Your task to perform on an android device: turn on airplane mode Image 0: 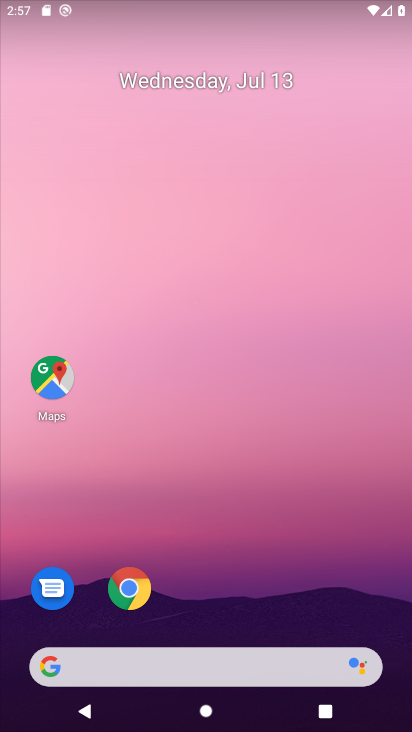
Step 0: drag from (190, 640) to (189, 132)
Your task to perform on an android device: turn on airplane mode Image 1: 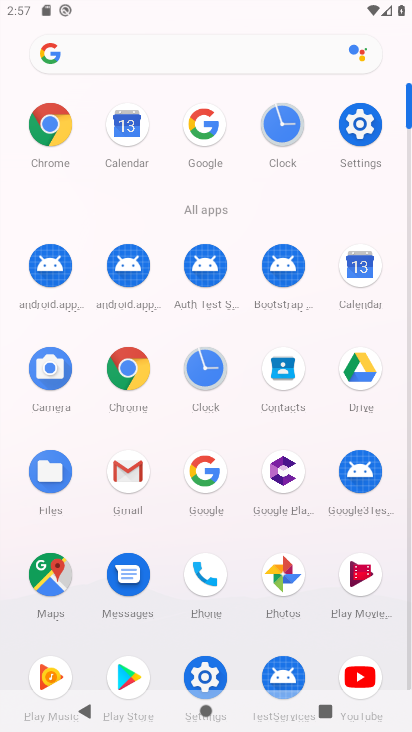
Step 1: click (349, 124)
Your task to perform on an android device: turn on airplane mode Image 2: 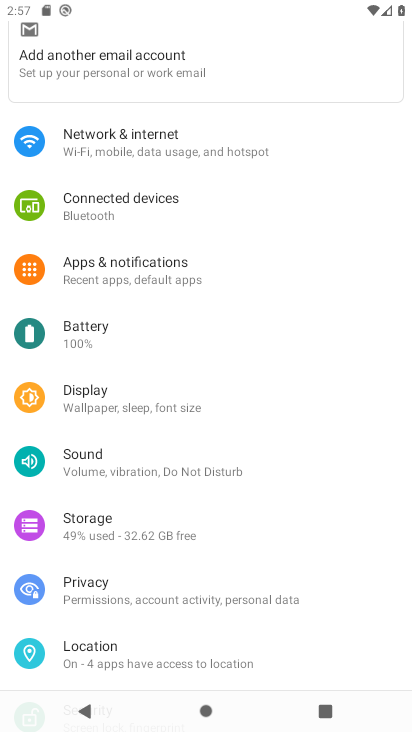
Step 2: click (153, 143)
Your task to perform on an android device: turn on airplane mode Image 3: 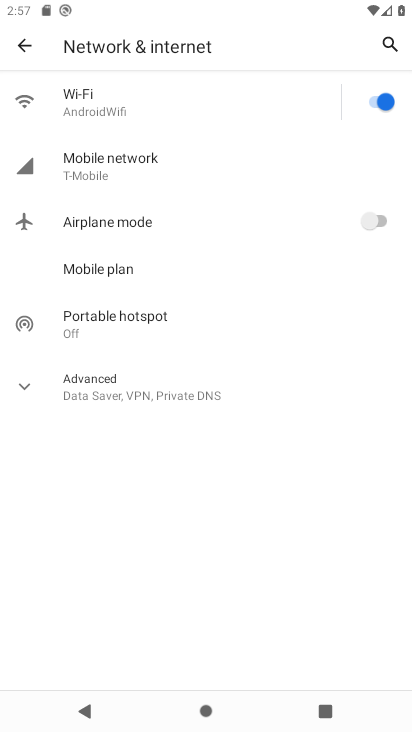
Step 3: click (171, 229)
Your task to perform on an android device: turn on airplane mode Image 4: 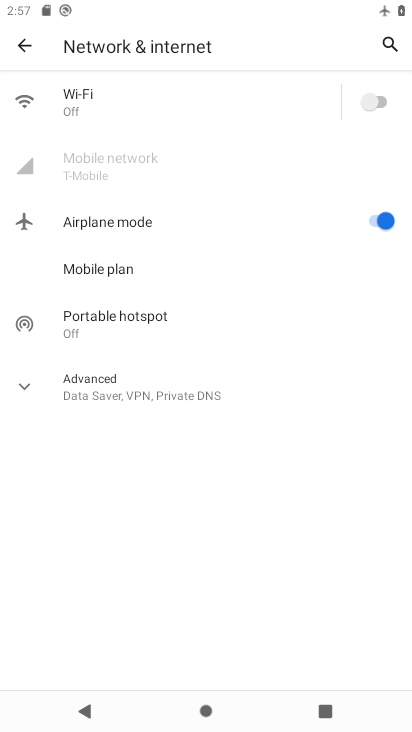
Step 4: task complete